Your task to perform on an android device: Add panasonic triple a to the cart on ebay.com, then select checkout. Image 0: 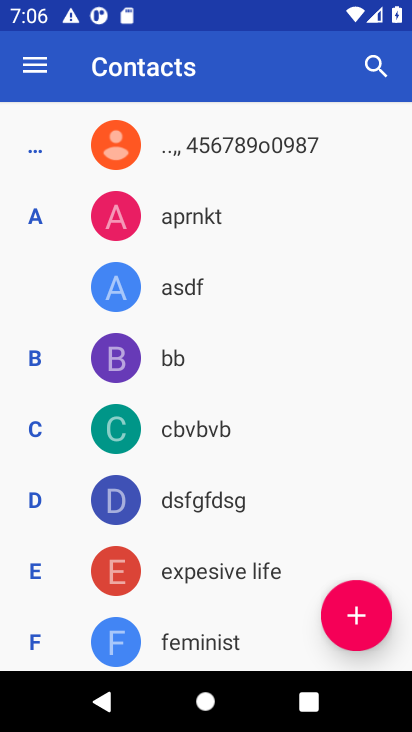
Step 0: press home button
Your task to perform on an android device: Add panasonic triple a to the cart on ebay.com, then select checkout. Image 1: 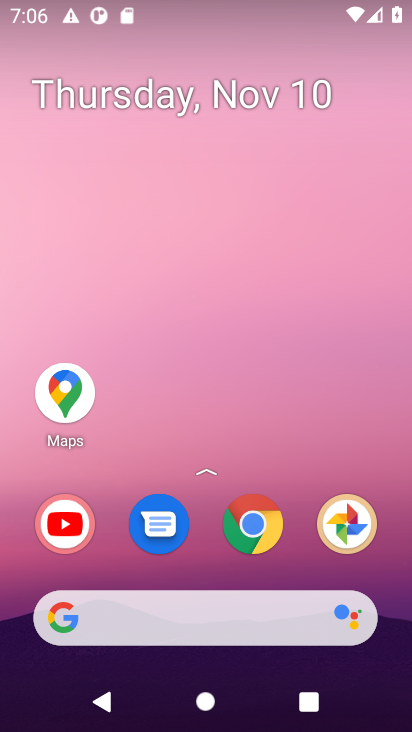
Step 1: click (252, 502)
Your task to perform on an android device: Add panasonic triple a to the cart on ebay.com, then select checkout. Image 2: 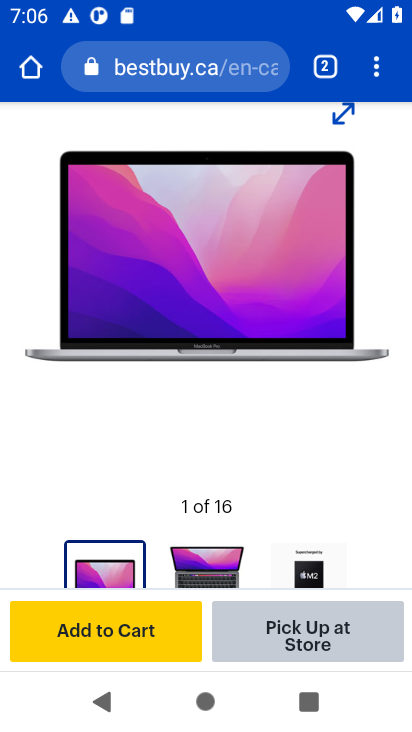
Step 2: click (323, 63)
Your task to perform on an android device: Add panasonic triple a to the cart on ebay.com, then select checkout. Image 3: 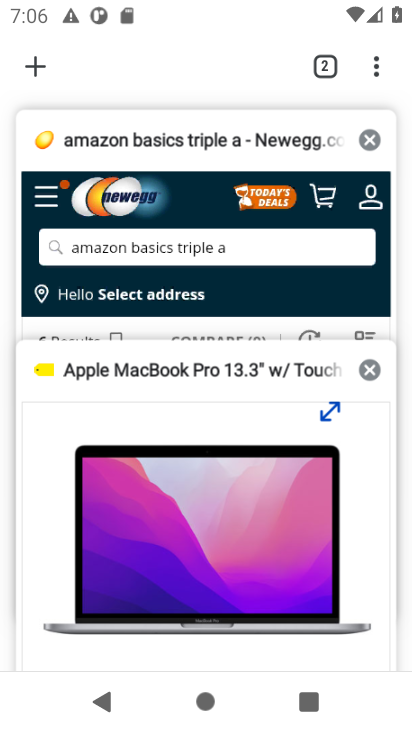
Step 3: click (34, 67)
Your task to perform on an android device: Add panasonic triple a to the cart on ebay.com, then select checkout. Image 4: 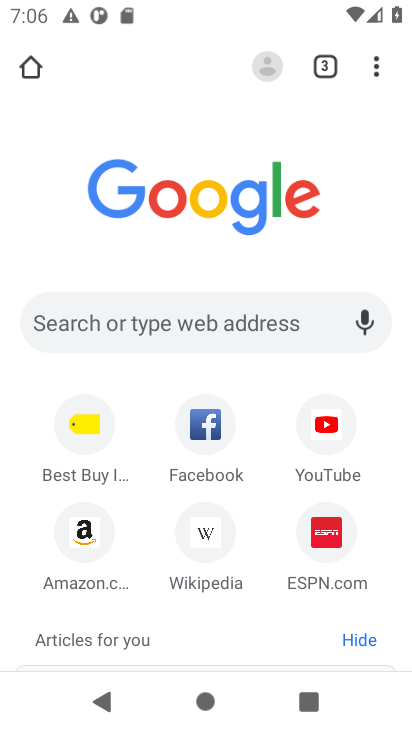
Step 4: click (225, 319)
Your task to perform on an android device: Add panasonic triple a to the cart on ebay.com, then select checkout. Image 5: 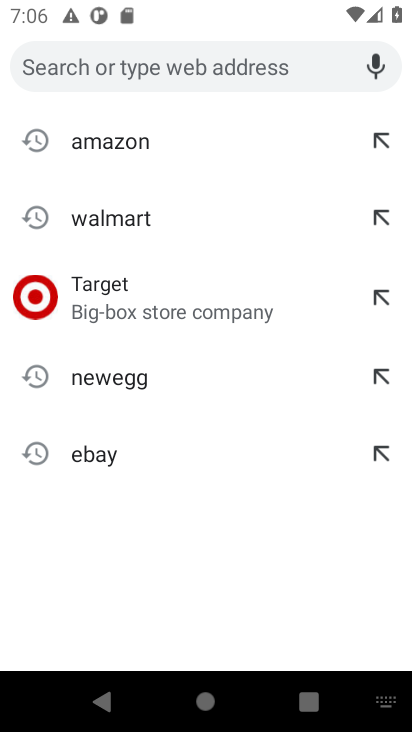
Step 5: type "ebay"
Your task to perform on an android device: Add panasonic triple a to the cart on ebay.com, then select checkout. Image 6: 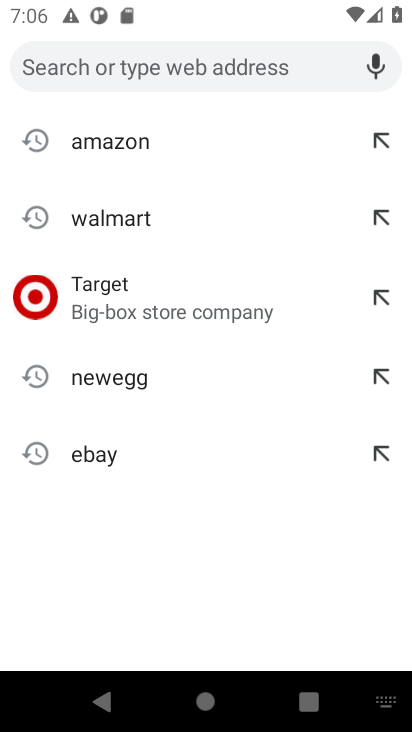
Step 6: click (89, 452)
Your task to perform on an android device: Add panasonic triple a to the cart on ebay.com, then select checkout. Image 7: 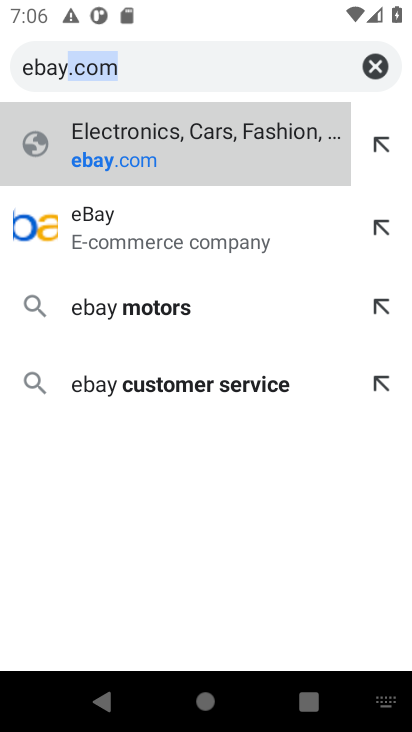
Step 7: click (136, 167)
Your task to perform on an android device: Add panasonic triple a to the cart on ebay.com, then select checkout. Image 8: 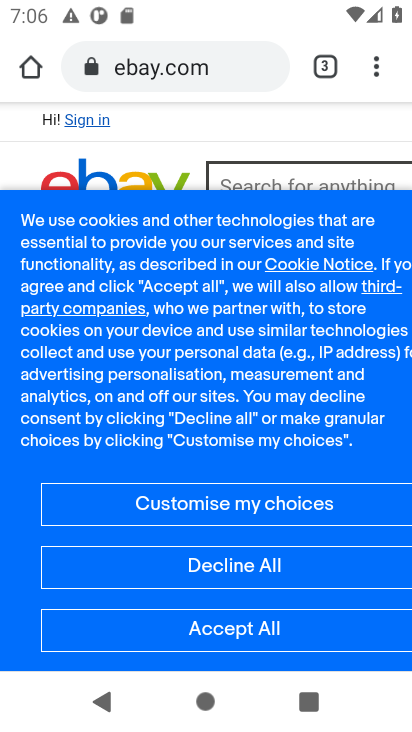
Step 8: click (278, 558)
Your task to perform on an android device: Add panasonic triple a to the cart on ebay.com, then select checkout. Image 9: 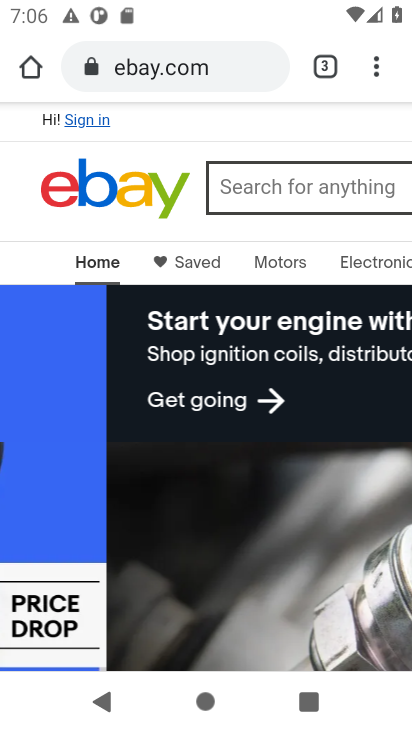
Step 9: click (273, 170)
Your task to perform on an android device: Add panasonic triple a to the cart on ebay.com, then select checkout. Image 10: 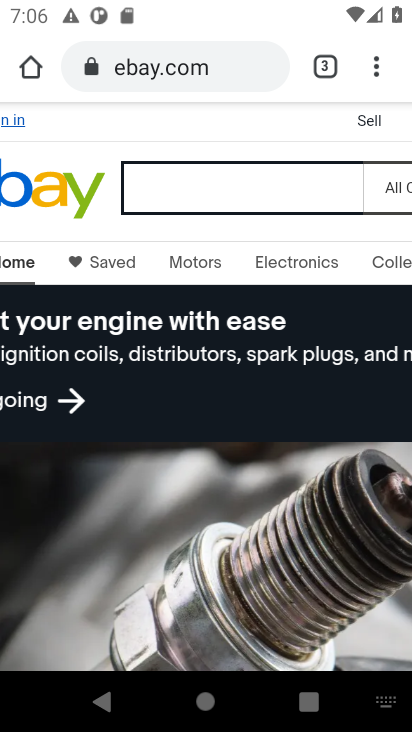
Step 10: type "panasonic triple a"
Your task to perform on an android device: Add panasonic triple a to the cart on ebay.com, then select checkout. Image 11: 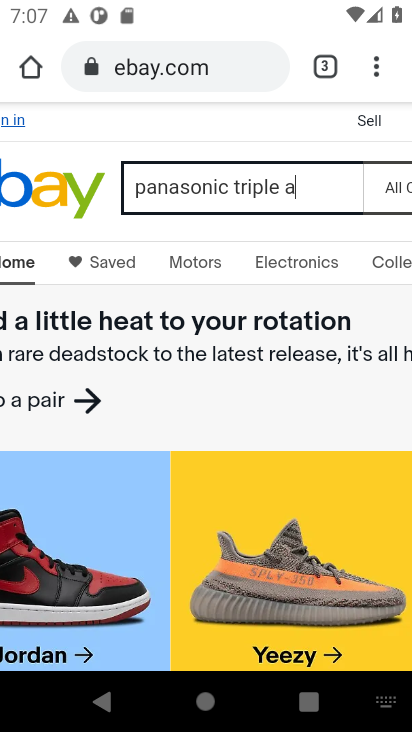
Step 11: drag from (352, 233) to (255, 248)
Your task to perform on an android device: Add panasonic triple a to the cart on ebay.com, then select checkout. Image 12: 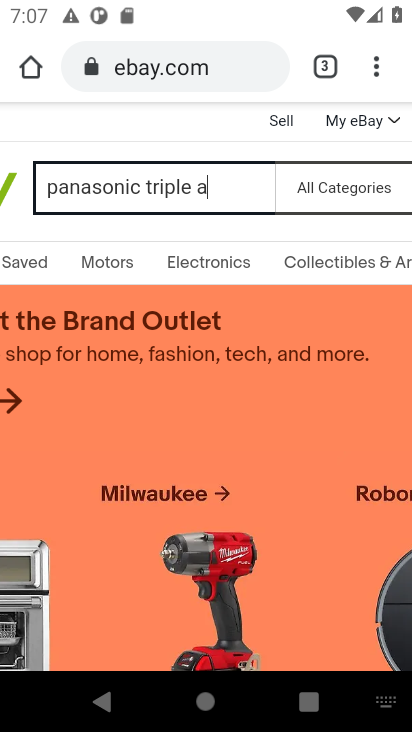
Step 12: drag from (397, 224) to (184, 256)
Your task to perform on an android device: Add panasonic triple a to the cart on ebay.com, then select checkout. Image 13: 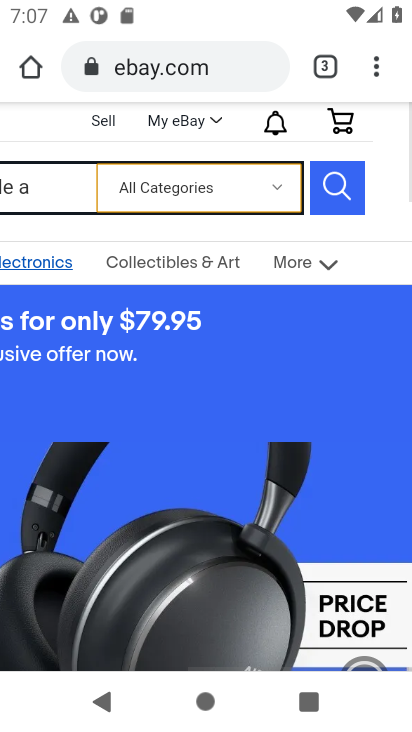
Step 13: click (156, 251)
Your task to perform on an android device: Add panasonic triple a to the cart on ebay.com, then select checkout. Image 14: 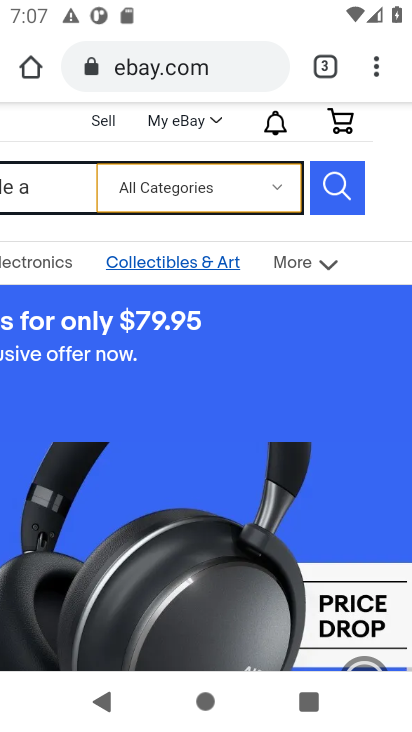
Step 14: click (177, 249)
Your task to perform on an android device: Add panasonic triple a to the cart on ebay.com, then select checkout. Image 15: 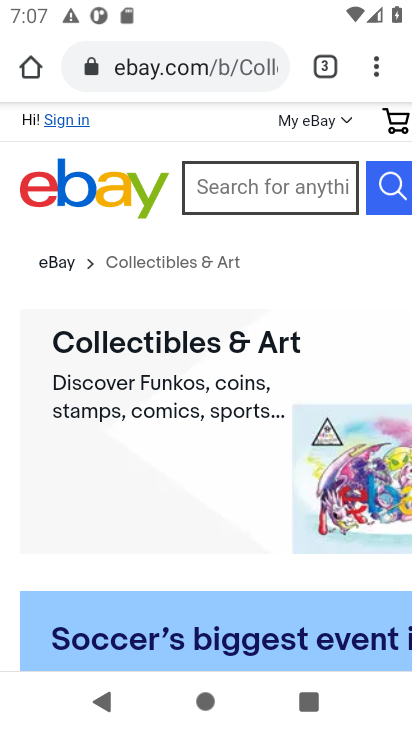
Step 15: click (272, 192)
Your task to perform on an android device: Add panasonic triple a to the cart on ebay.com, then select checkout. Image 16: 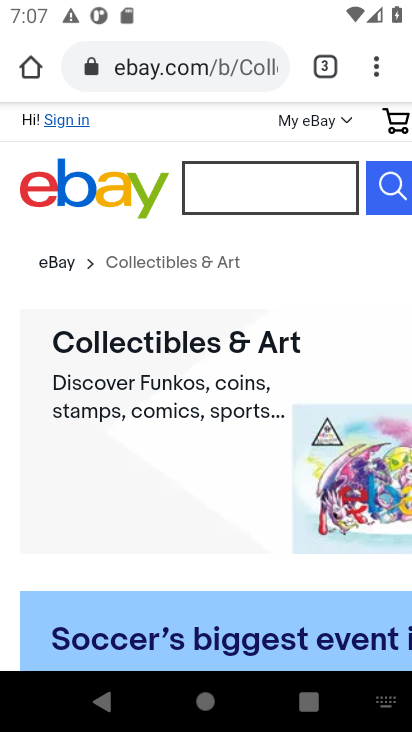
Step 16: type "panasonic triple a"
Your task to perform on an android device: Add panasonic triple a to the cart on ebay.com, then select checkout. Image 17: 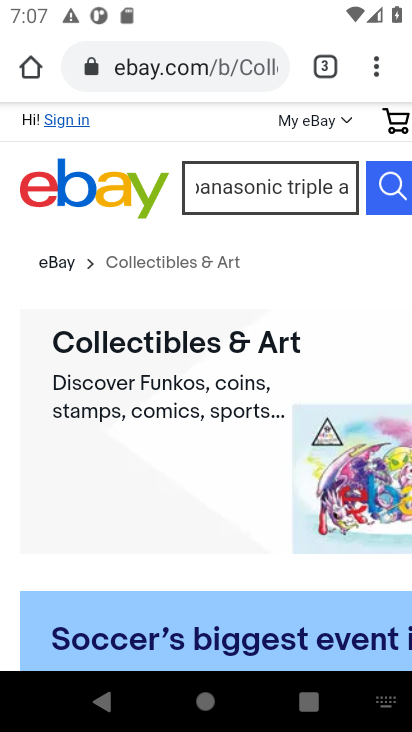
Step 17: click (401, 192)
Your task to perform on an android device: Add panasonic triple a to the cart on ebay.com, then select checkout. Image 18: 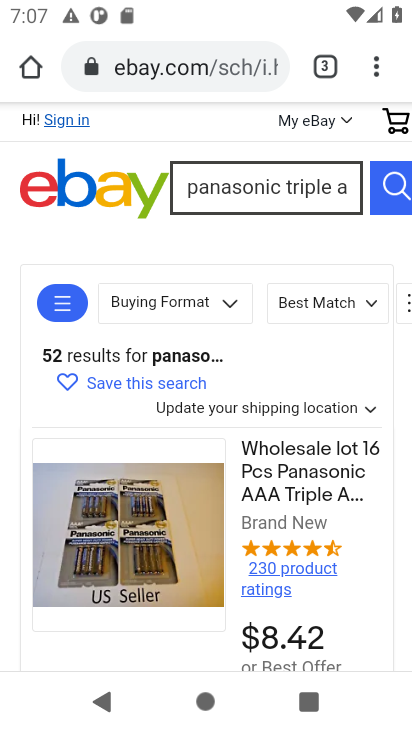
Step 18: drag from (298, 387) to (353, 138)
Your task to perform on an android device: Add panasonic triple a to the cart on ebay.com, then select checkout. Image 19: 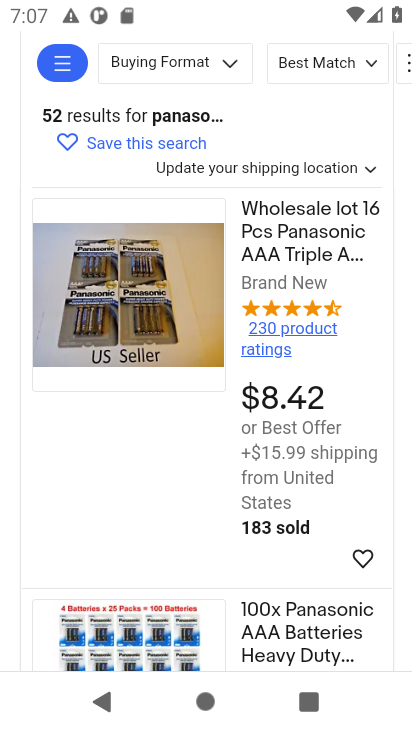
Step 19: click (313, 225)
Your task to perform on an android device: Add panasonic triple a to the cart on ebay.com, then select checkout. Image 20: 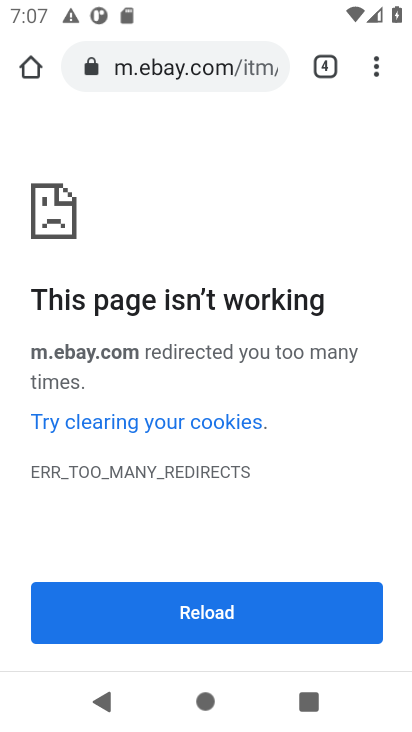
Step 20: task complete